Your task to perform on an android device: turn on notifications settings in the gmail app Image 0: 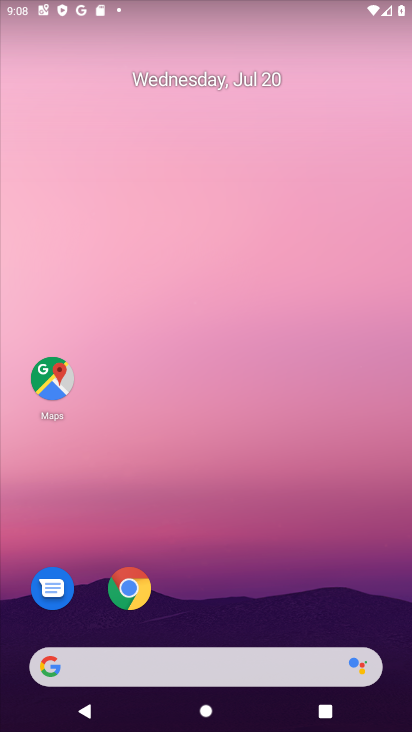
Step 0: press home button
Your task to perform on an android device: turn on notifications settings in the gmail app Image 1: 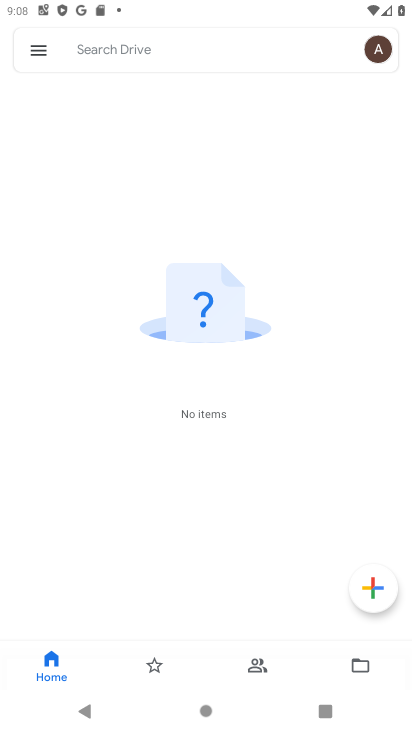
Step 1: drag from (209, 582) to (163, 144)
Your task to perform on an android device: turn on notifications settings in the gmail app Image 2: 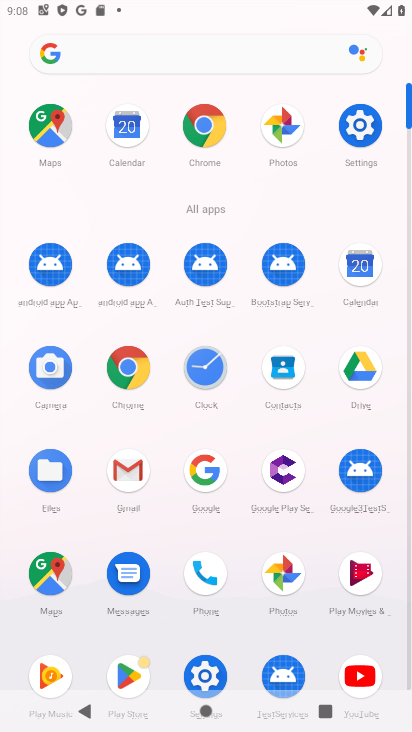
Step 2: click (132, 675)
Your task to perform on an android device: turn on notifications settings in the gmail app Image 3: 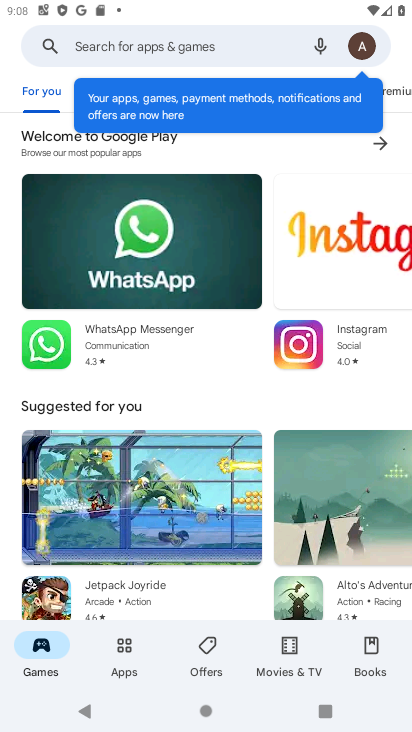
Step 3: press home button
Your task to perform on an android device: turn on notifications settings in the gmail app Image 4: 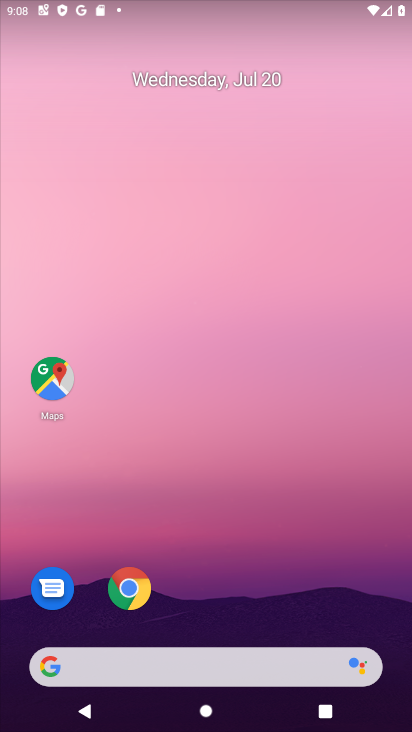
Step 4: drag from (325, 666) to (412, 514)
Your task to perform on an android device: turn on notifications settings in the gmail app Image 5: 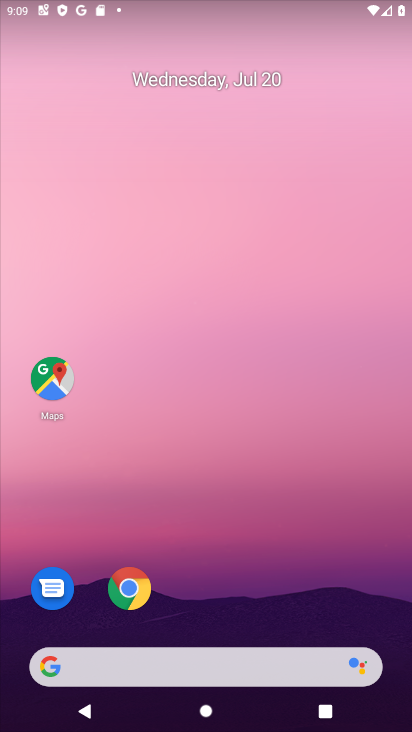
Step 5: drag from (204, 668) to (203, 113)
Your task to perform on an android device: turn on notifications settings in the gmail app Image 6: 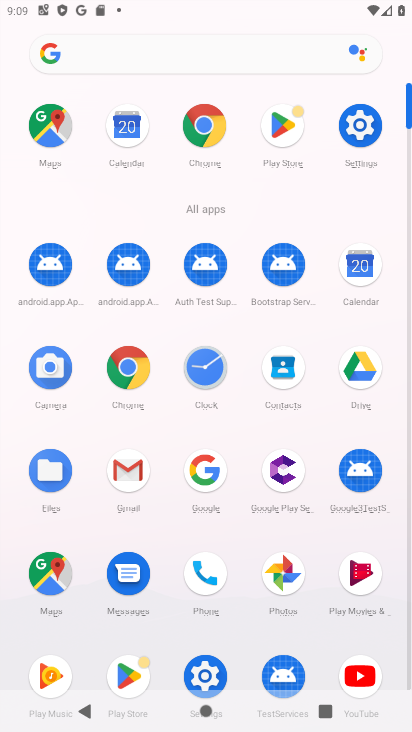
Step 6: click (129, 470)
Your task to perform on an android device: turn on notifications settings in the gmail app Image 7: 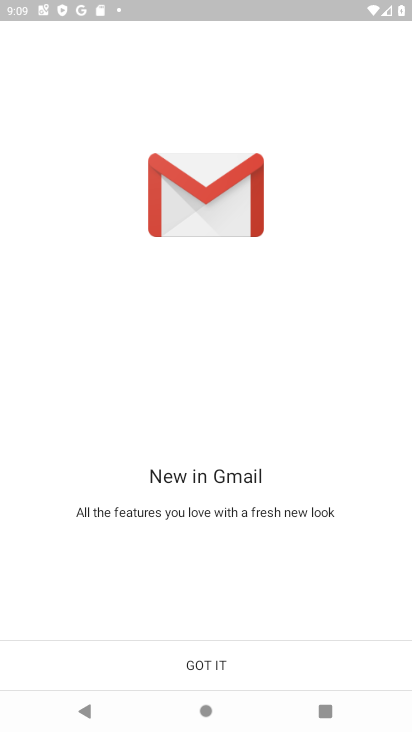
Step 7: click (241, 652)
Your task to perform on an android device: turn on notifications settings in the gmail app Image 8: 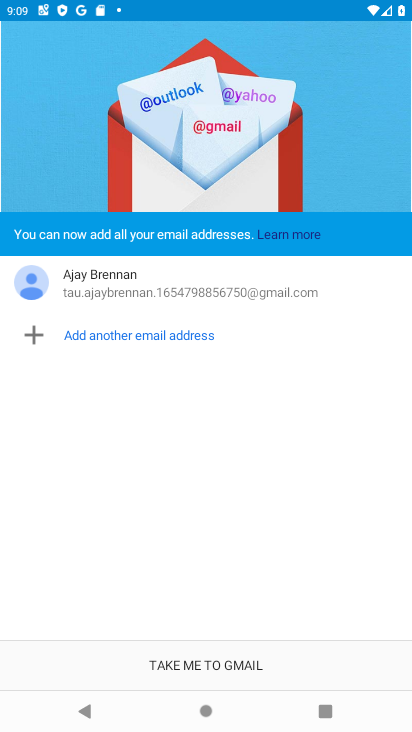
Step 8: click (139, 658)
Your task to perform on an android device: turn on notifications settings in the gmail app Image 9: 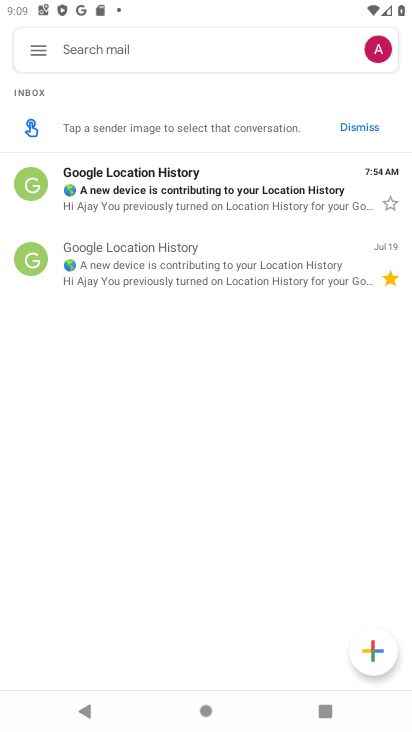
Step 9: click (43, 40)
Your task to perform on an android device: turn on notifications settings in the gmail app Image 10: 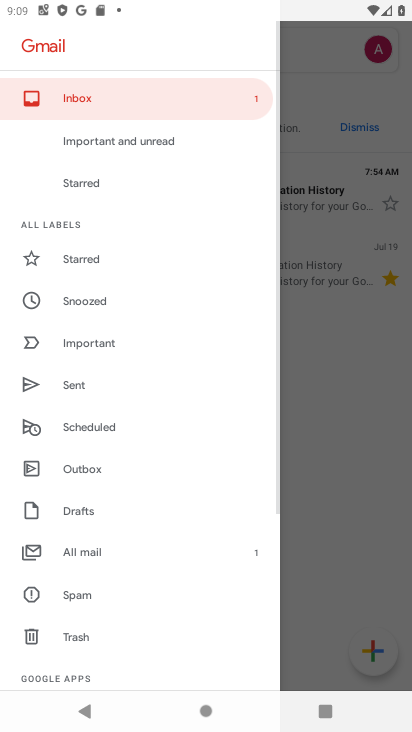
Step 10: drag from (55, 634) to (170, 196)
Your task to perform on an android device: turn on notifications settings in the gmail app Image 11: 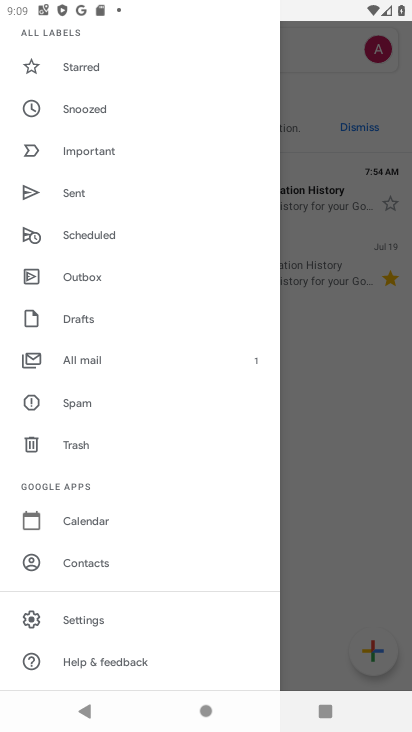
Step 11: click (124, 618)
Your task to perform on an android device: turn on notifications settings in the gmail app Image 12: 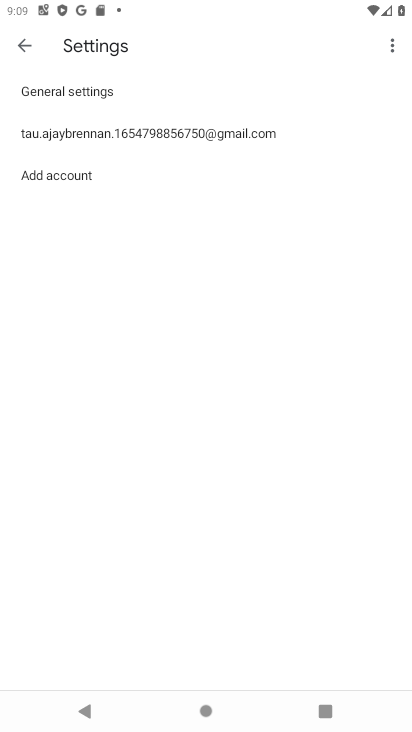
Step 12: click (160, 136)
Your task to perform on an android device: turn on notifications settings in the gmail app Image 13: 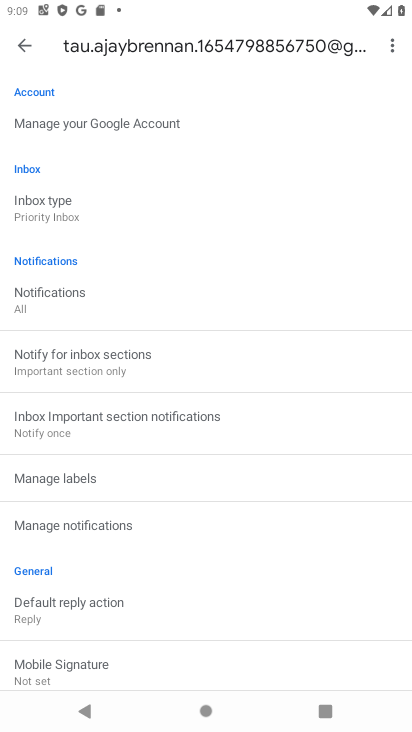
Step 13: click (66, 517)
Your task to perform on an android device: turn on notifications settings in the gmail app Image 14: 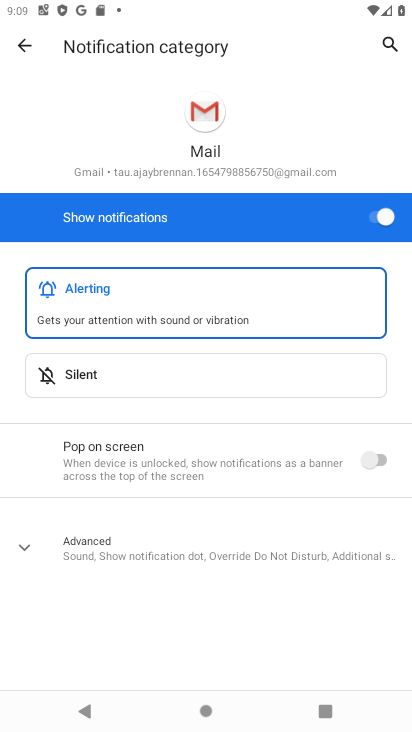
Step 14: click (380, 220)
Your task to perform on an android device: turn on notifications settings in the gmail app Image 15: 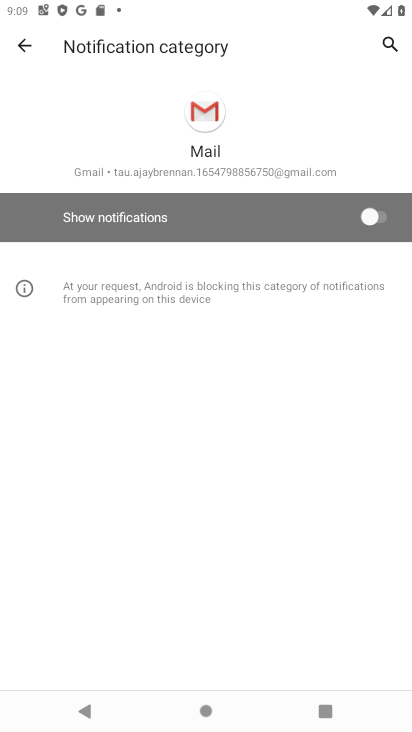
Step 15: task complete